Your task to perform on an android device: Open settings Image 0: 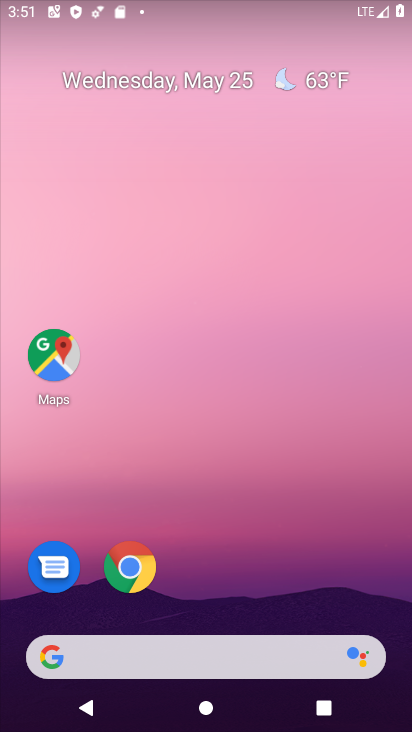
Step 0: drag from (231, 600) to (231, 70)
Your task to perform on an android device: Open settings Image 1: 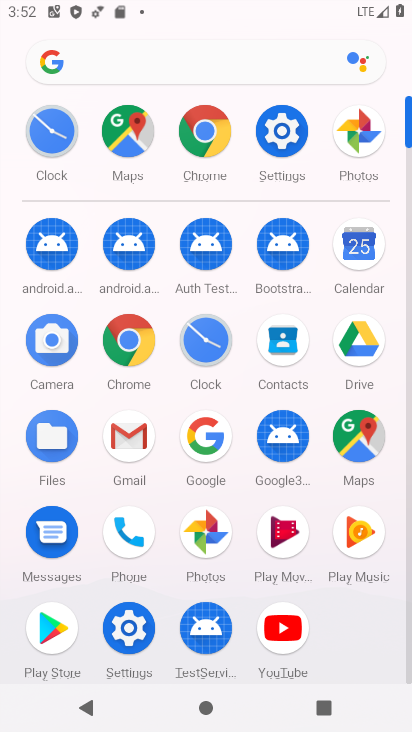
Step 1: click (124, 626)
Your task to perform on an android device: Open settings Image 2: 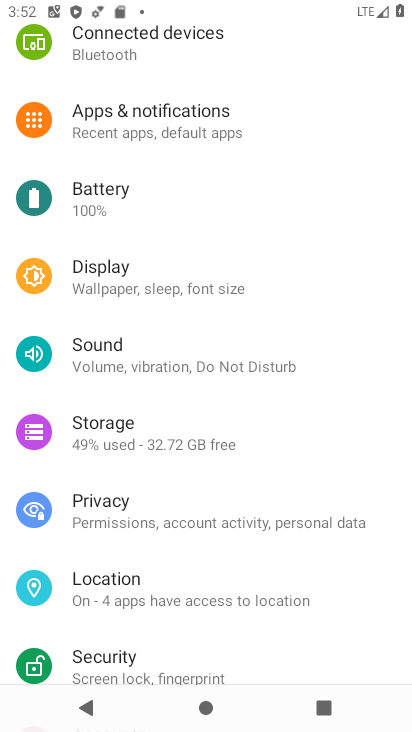
Step 2: task complete